Your task to perform on an android device: Is it going to rain tomorrow? Image 0: 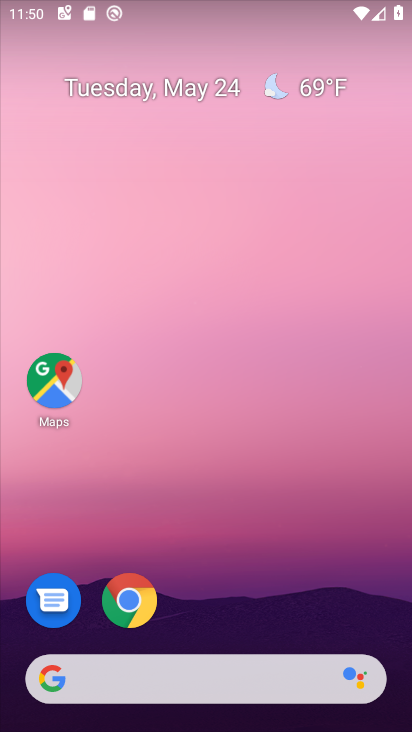
Step 0: click (211, 682)
Your task to perform on an android device: Is it going to rain tomorrow? Image 1: 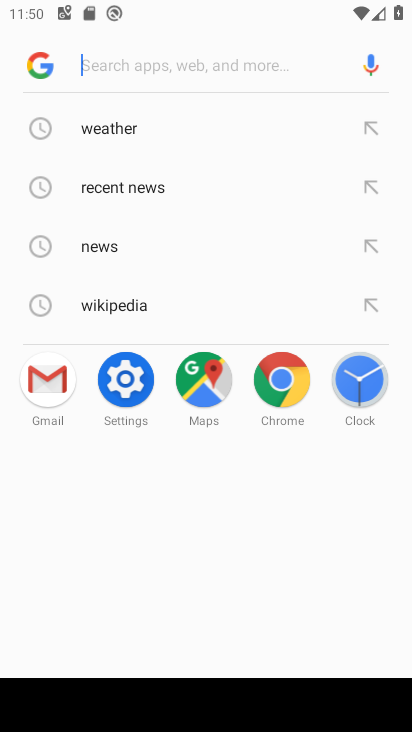
Step 1: click (122, 127)
Your task to perform on an android device: Is it going to rain tomorrow? Image 2: 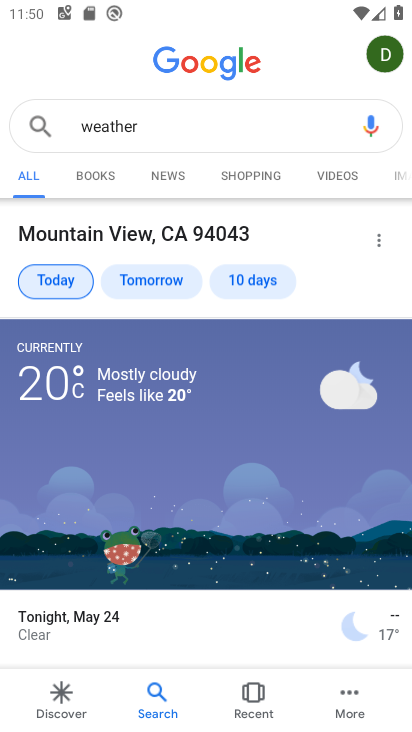
Step 2: click (155, 284)
Your task to perform on an android device: Is it going to rain tomorrow? Image 3: 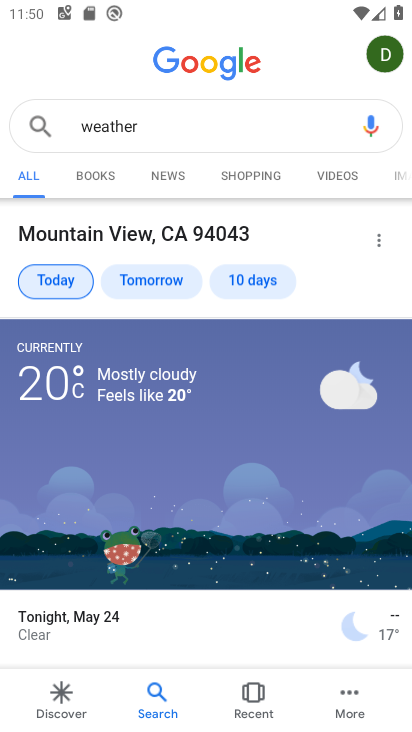
Step 3: click (178, 271)
Your task to perform on an android device: Is it going to rain tomorrow? Image 4: 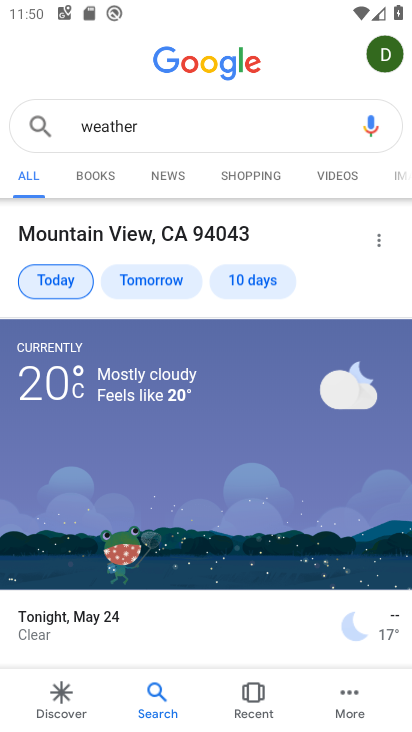
Step 4: click (173, 275)
Your task to perform on an android device: Is it going to rain tomorrow? Image 5: 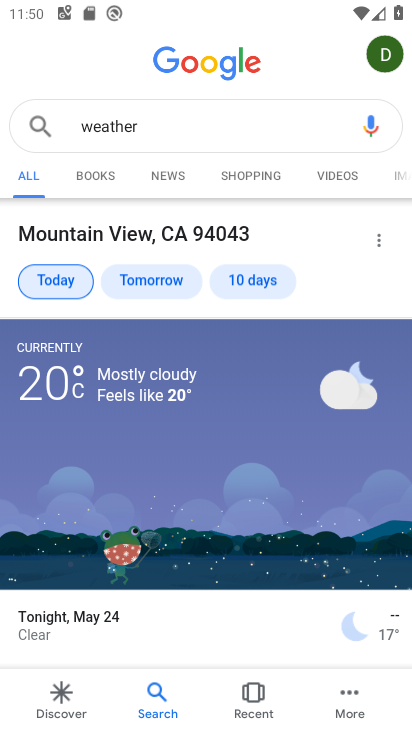
Step 5: click (170, 275)
Your task to perform on an android device: Is it going to rain tomorrow? Image 6: 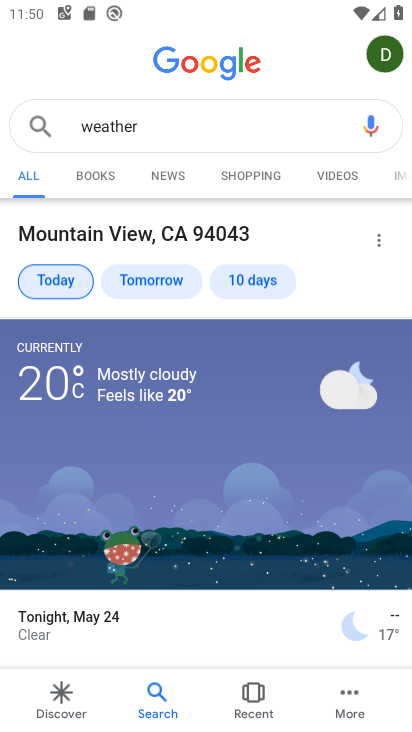
Step 6: task complete